Your task to perform on an android device: turn on improve location accuracy Image 0: 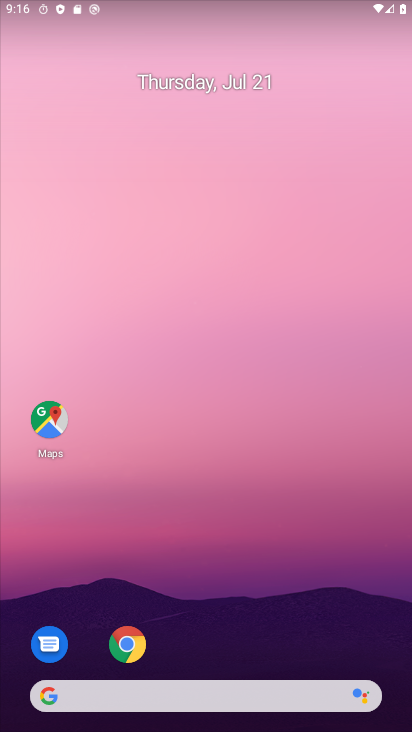
Step 0: click (233, 190)
Your task to perform on an android device: turn on improve location accuracy Image 1: 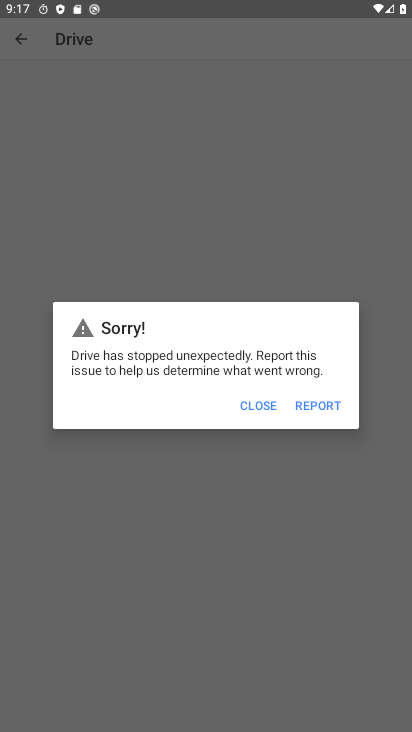
Step 1: click (263, 402)
Your task to perform on an android device: turn on improve location accuracy Image 2: 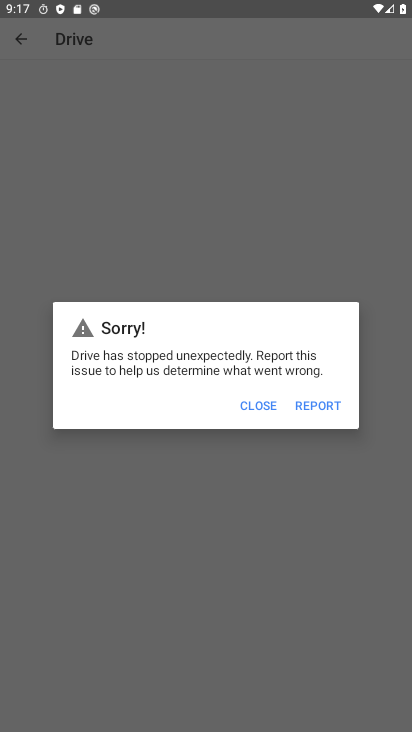
Step 2: click (267, 390)
Your task to perform on an android device: turn on improve location accuracy Image 3: 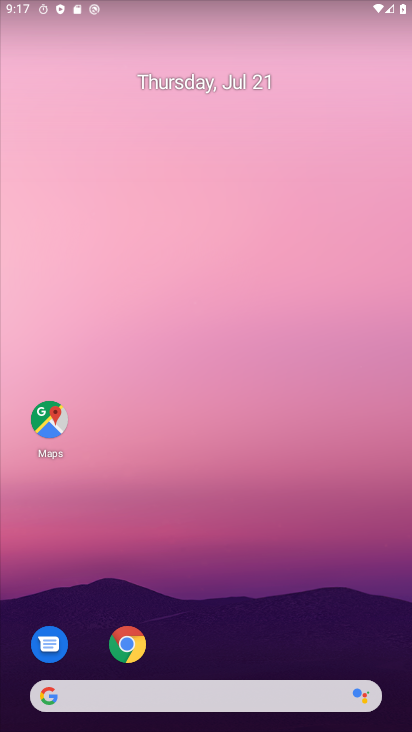
Step 3: drag from (265, 518) to (253, 209)
Your task to perform on an android device: turn on improve location accuracy Image 4: 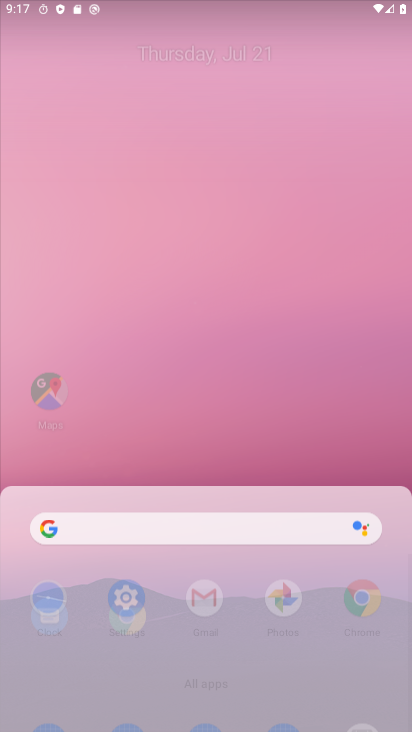
Step 4: drag from (217, 516) to (168, 156)
Your task to perform on an android device: turn on improve location accuracy Image 5: 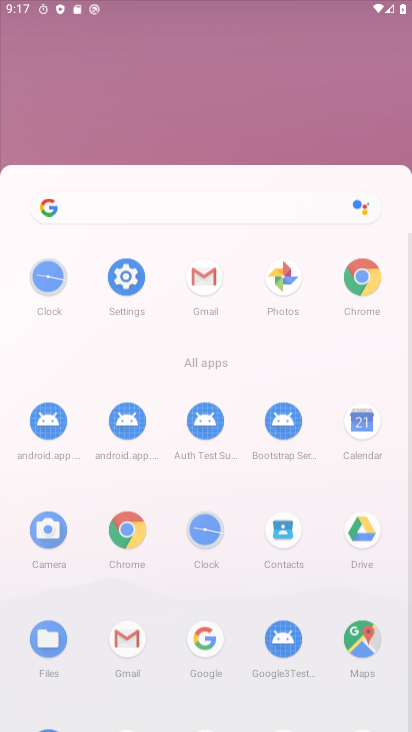
Step 5: drag from (150, 456) to (144, 240)
Your task to perform on an android device: turn on improve location accuracy Image 6: 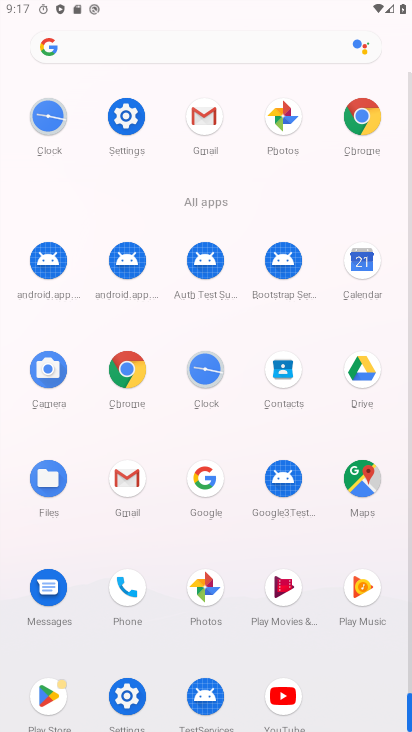
Step 6: click (360, 467)
Your task to perform on an android device: turn on improve location accuracy Image 7: 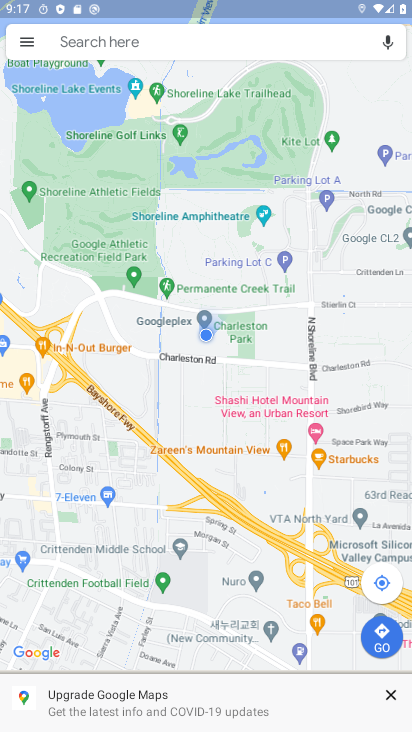
Step 7: press back button
Your task to perform on an android device: turn on improve location accuracy Image 8: 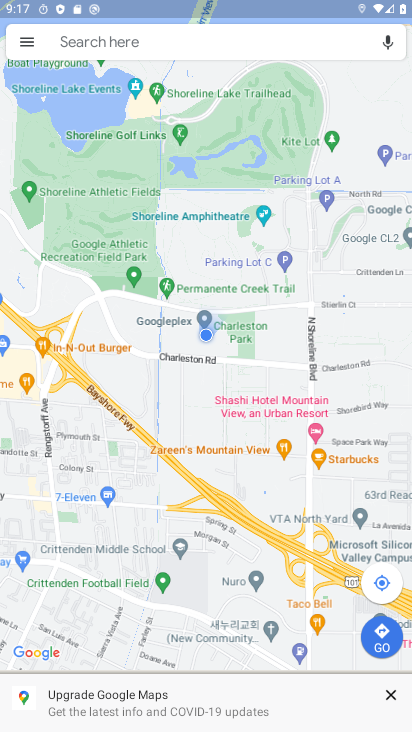
Step 8: press back button
Your task to perform on an android device: turn on improve location accuracy Image 9: 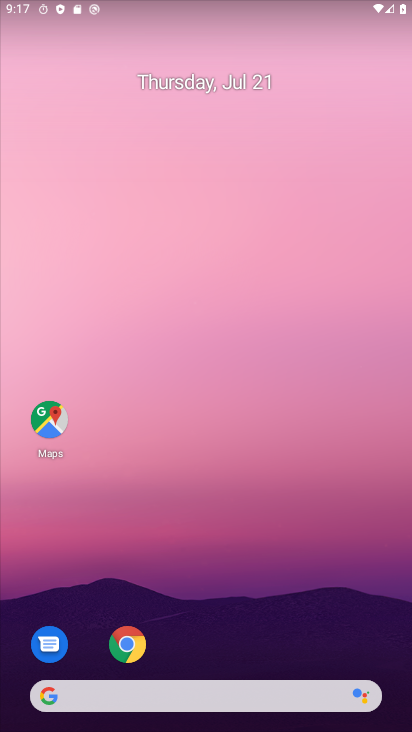
Step 9: drag from (221, 663) to (159, 2)
Your task to perform on an android device: turn on improve location accuracy Image 10: 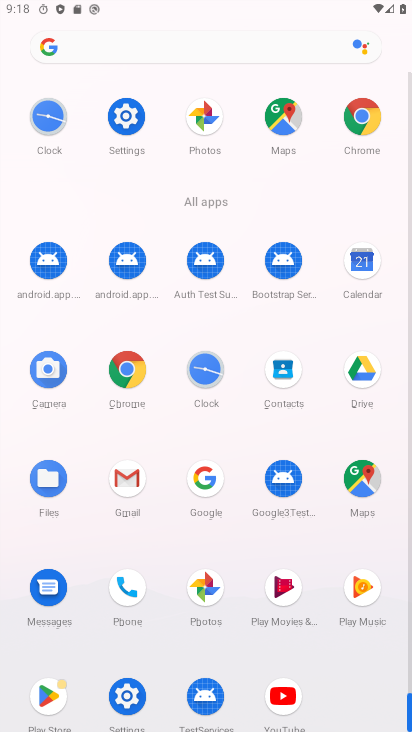
Step 10: click (133, 119)
Your task to perform on an android device: turn on improve location accuracy Image 11: 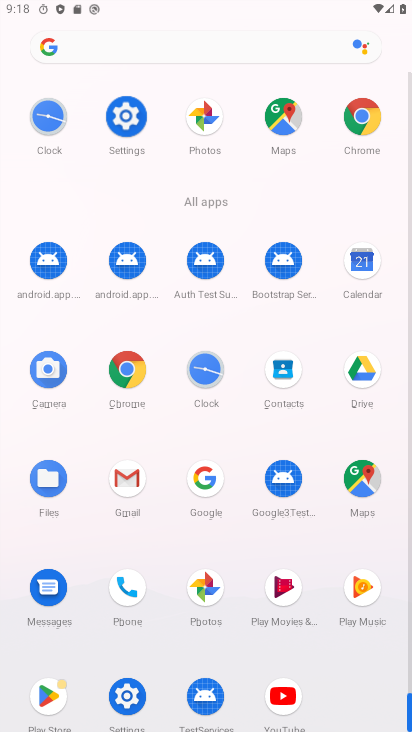
Step 11: click (128, 118)
Your task to perform on an android device: turn on improve location accuracy Image 12: 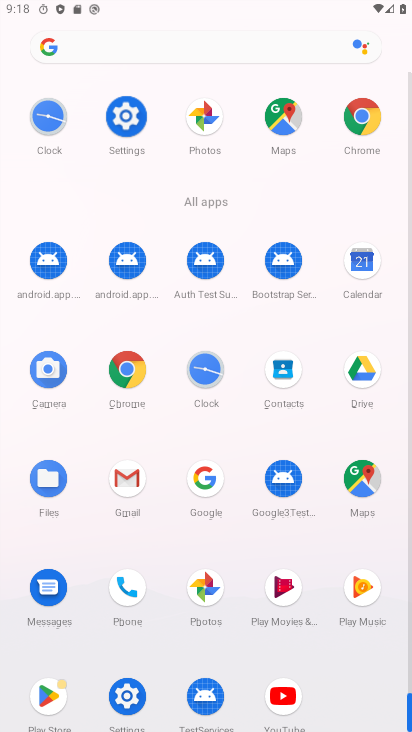
Step 12: click (128, 118)
Your task to perform on an android device: turn on improve location accuracy Image 13: 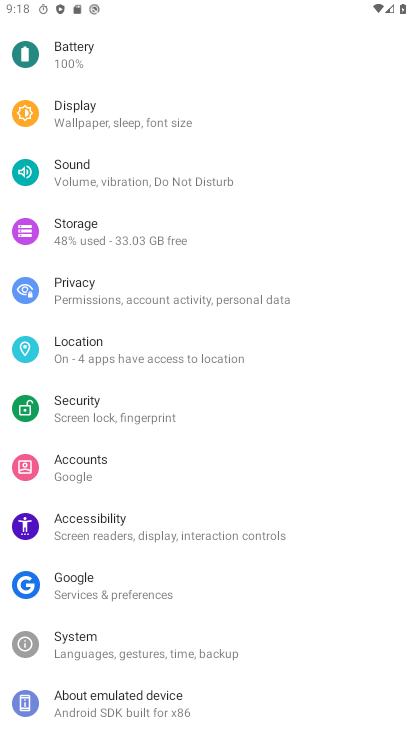
Step 13: click (129, 120)
Your task to perform on an android device: turn on improve location accuracy Image 14: 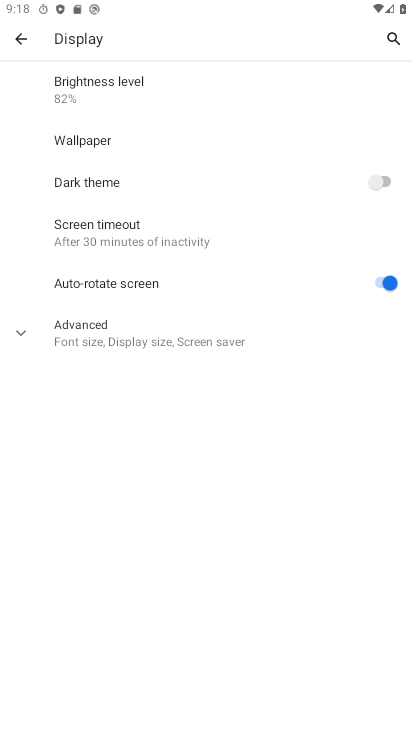
Step 14: click (22, 36)
Your task to perform on an android device: turn on improve location accuracy Image 15: 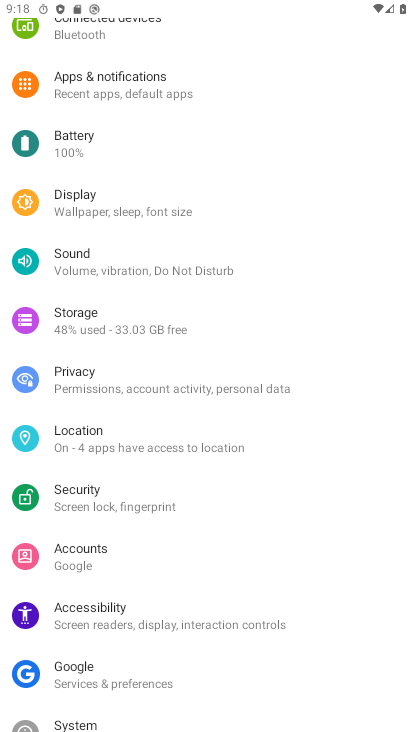
Step 15: click (81, 433)
Your task to perform on an android device: turn on improve location accuracy Image 16: 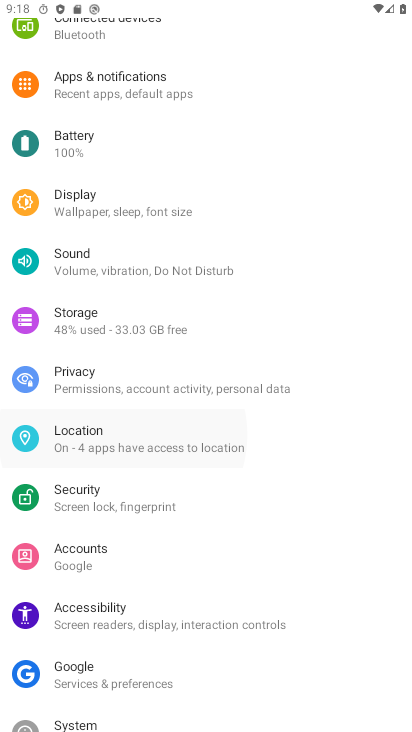
Step 16: click (81, 433)
Your task to perform on an android device: turn on improve location accuracy Image 17: 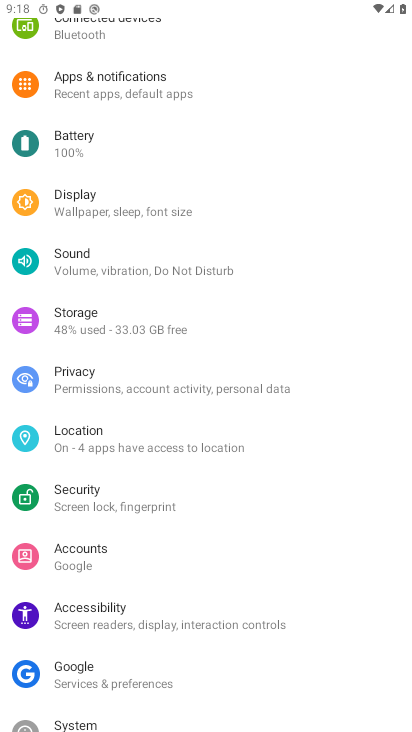
Step 17: click (84, 434)
Your task to perform on an android device: turn on improve location accuracy Image 18: 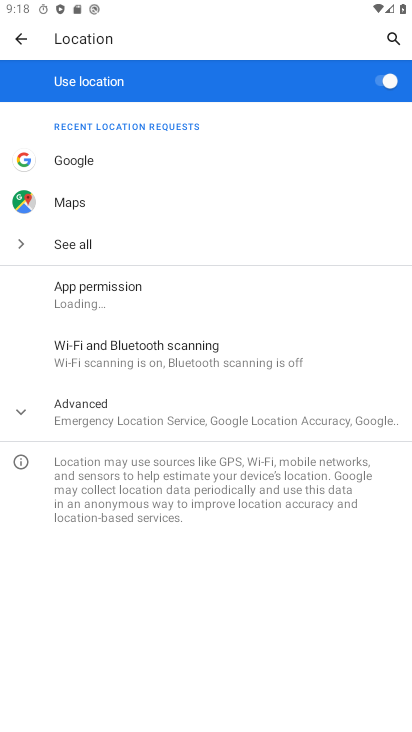
Step 18: click (106, 415)
Your task to perform on an android device: turn on improve location accuracy Image 19: 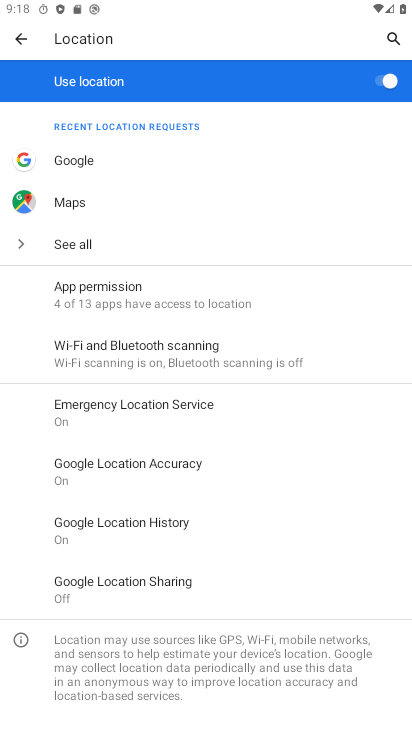
Step 19: click (120, 465)
Your task to perform on an android device: turn on improve location accuracy Image 20: 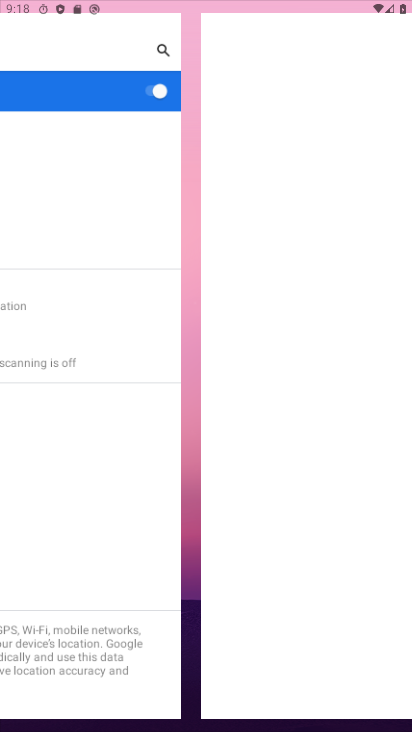
Step 20: click (128, 461)
Your task to perform on an android device: turn on improve location accuracy Image 21: 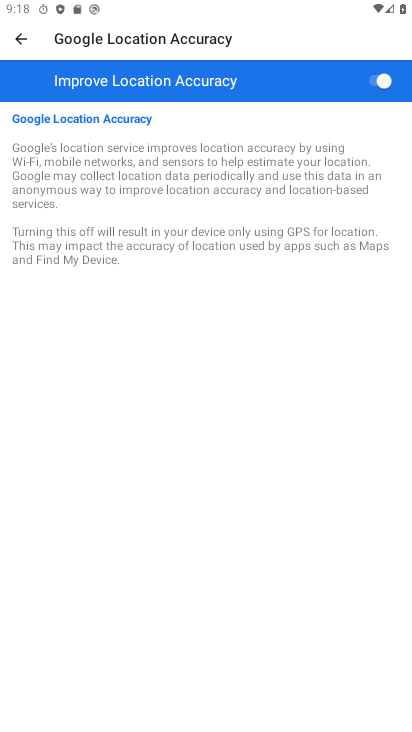
Step 21: task complete